Your task to perform on an android device: Go to eBay Image 0: 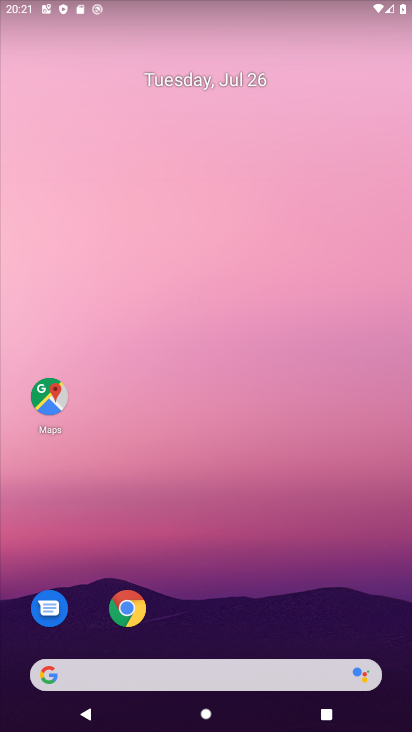
Step 0: click (120, 677)
Your task to perform on an android device: Go to eBay Image 1: 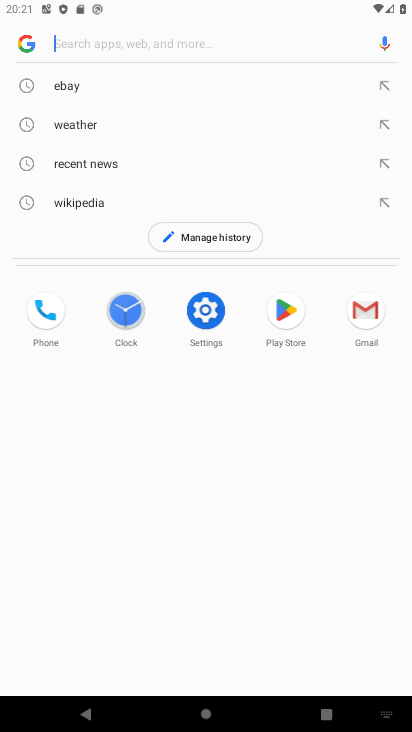
Step 1: click (59, 87)
Your task to perform on an android device: Go to eBay Image 2: 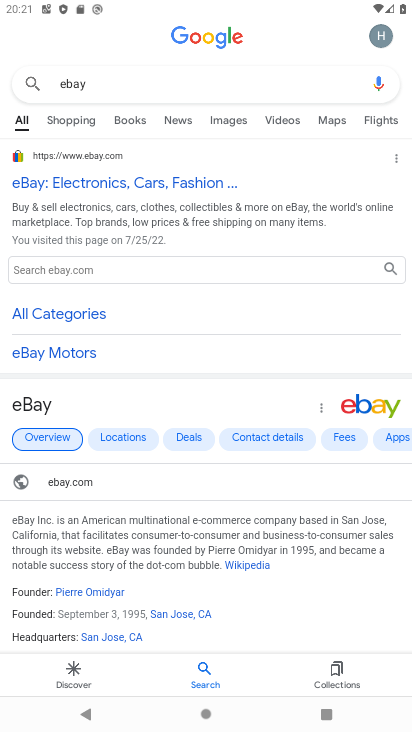
Step 2: task complete